Your task to perform on an android device: Open eBay Image 0: 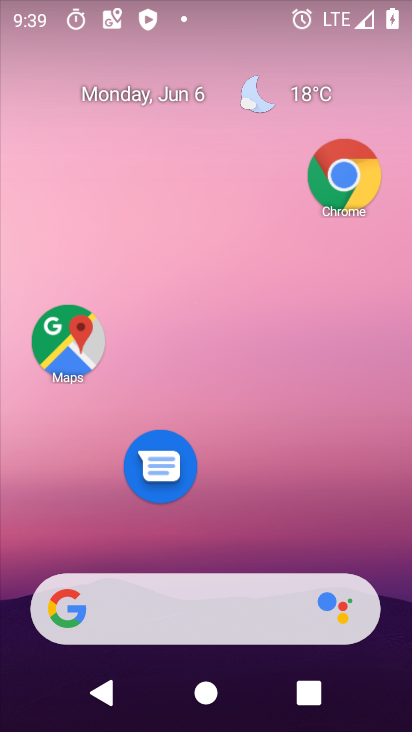
Step 0: click (205, 607)
Your task to perform on an android device: Open eBay Image 1: 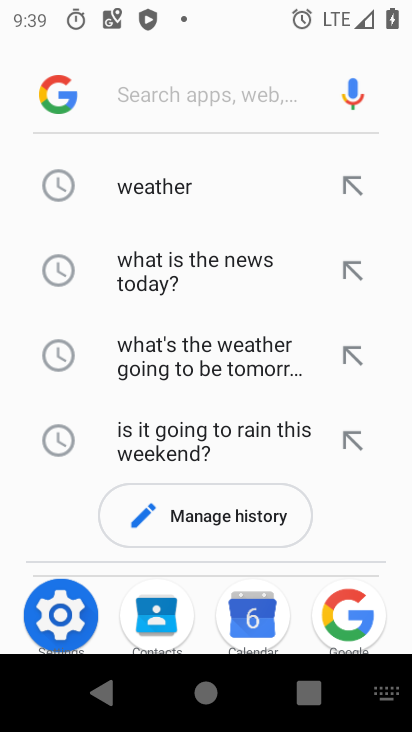
Step 1: drag from (271, 730) to (244, 490)
Your task to perform on an android device: Open eBay Image 2: 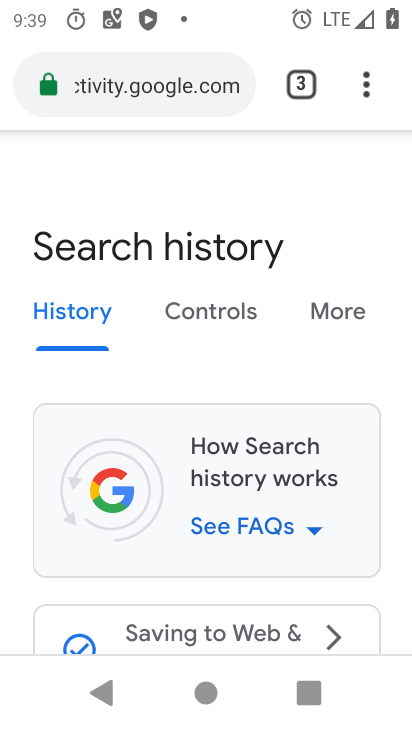
Step 2: click (140, 57)
Your task to perform on an android device: Open eBay Image 3: 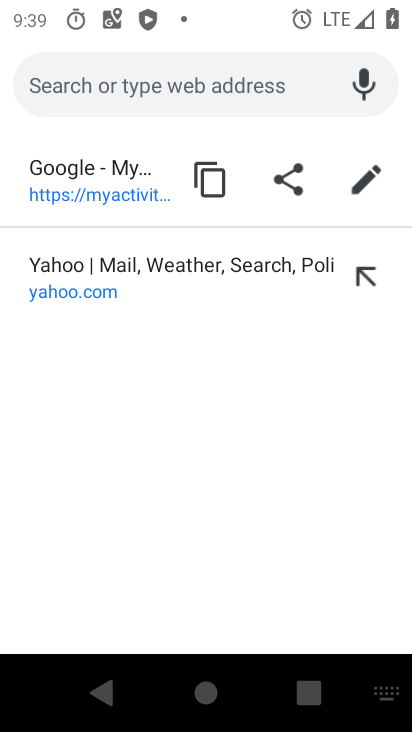
Step 3: type " eBay"
Your task to perform on an android device: Open eBay Image 4: 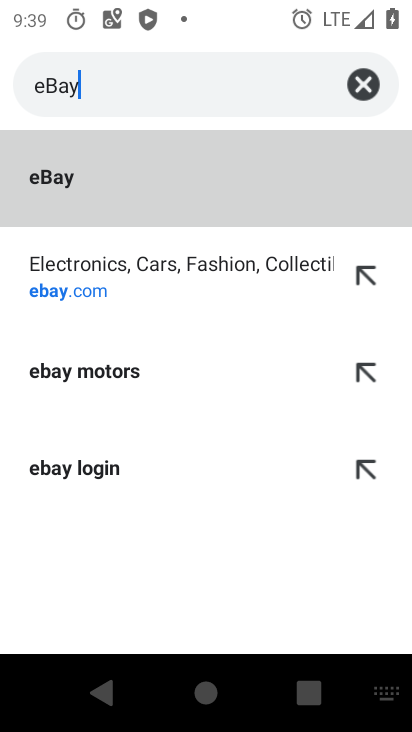
Step 4: type ""
Your task to perform on an android device: Open eBay Image 5: 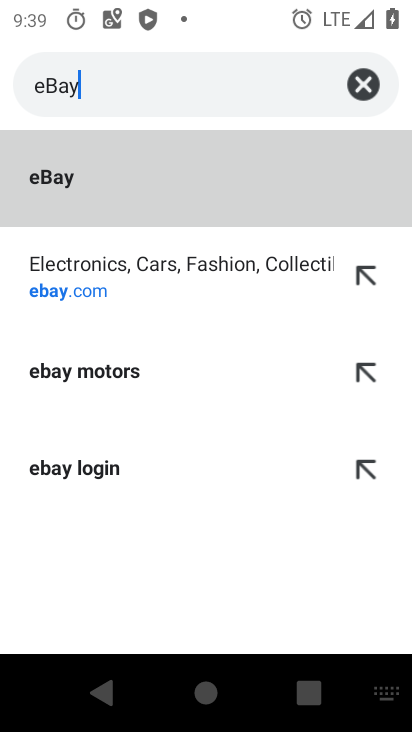
Step 5: click (45, 248)
Your task to perform on an android device: Open eBay Image 6: 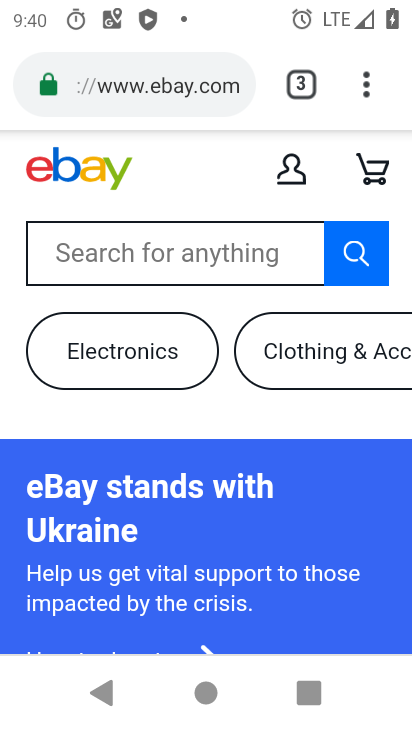
Step 6: task complete